Your task to perform on an android device: turn off smart reply in the gmail app Image 0: 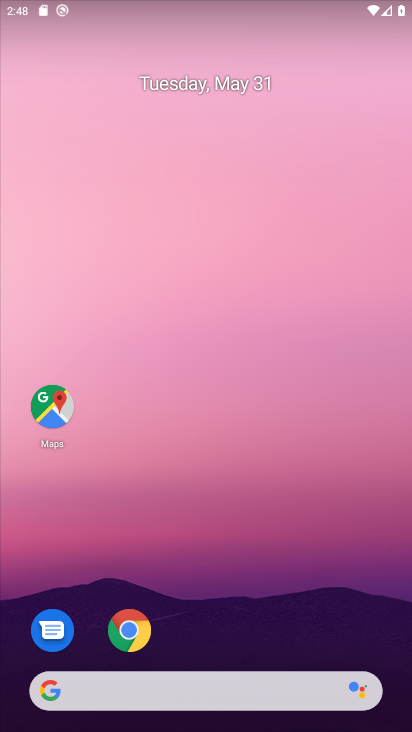
Step 0: drag from (218, 407) to (261, 50)
Your task to perform on an android device: turn off smart reply in the gmail app Image 1: 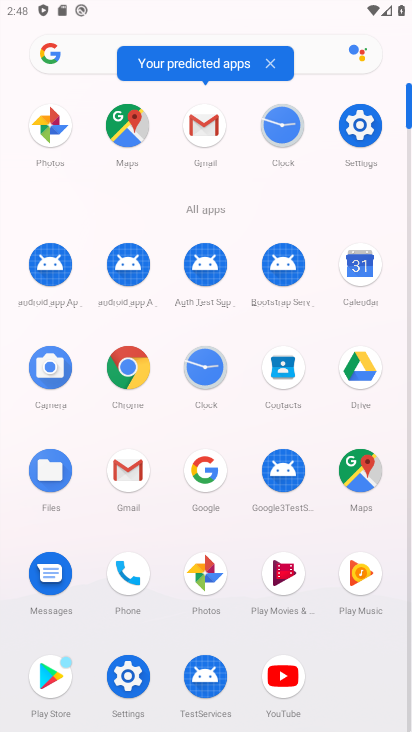
Step 1: click (206, 123)
Your task to perform on an android device: turn off smart reply in the gmail app Image 2: 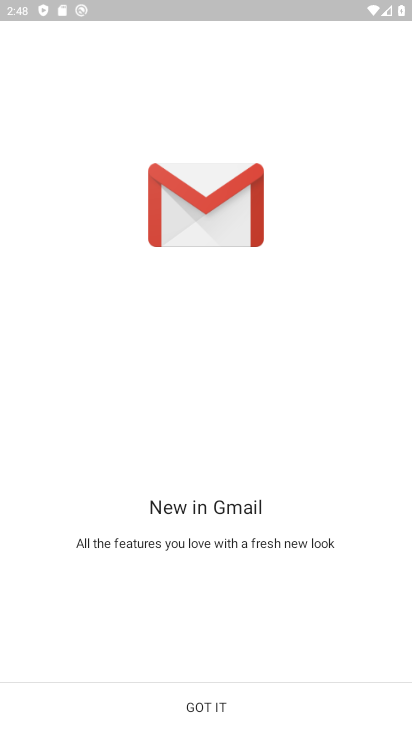
Step 2: click (191, 695)
Your task to perform on an android device: turn off smart reply in the gmail app Image 3: 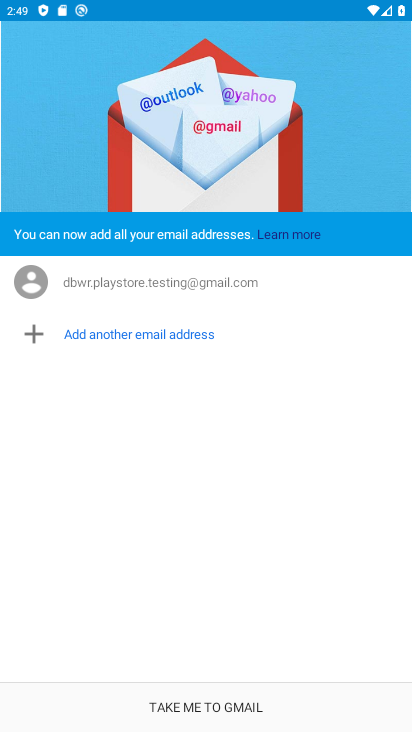
Step 3: click (176, 705)
Your task to perform on an android device: turn off smart reply in the gmail app Image 4: 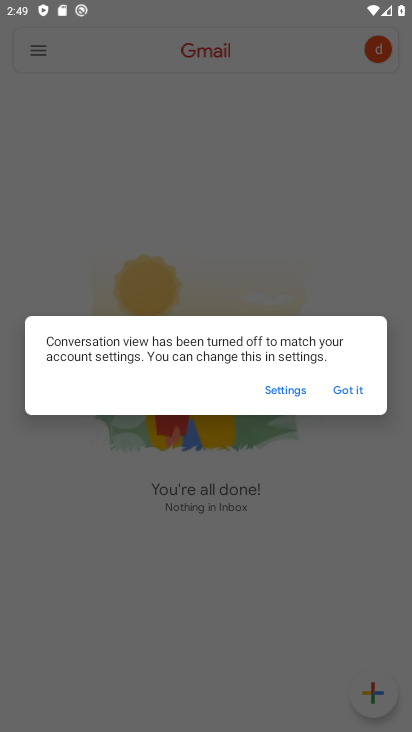
Step 4: click (345, 388)
Your task to perform on an android device: turn off smart reply in the gmail app Image 5: 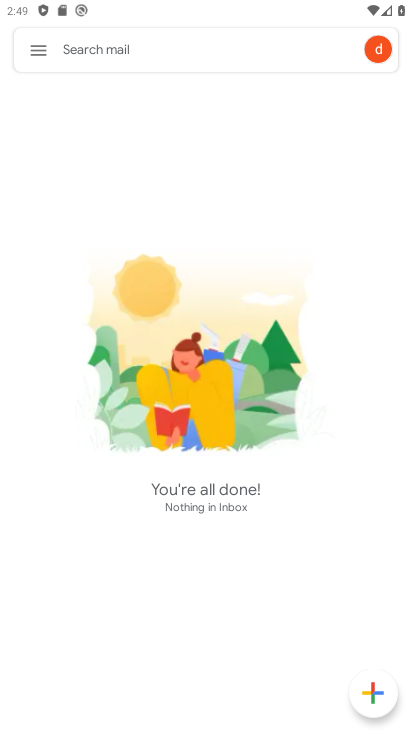
Step 5: click (22, 38)
Your task to perform on an android device: turn off smart reply in the gmail app Image 6: 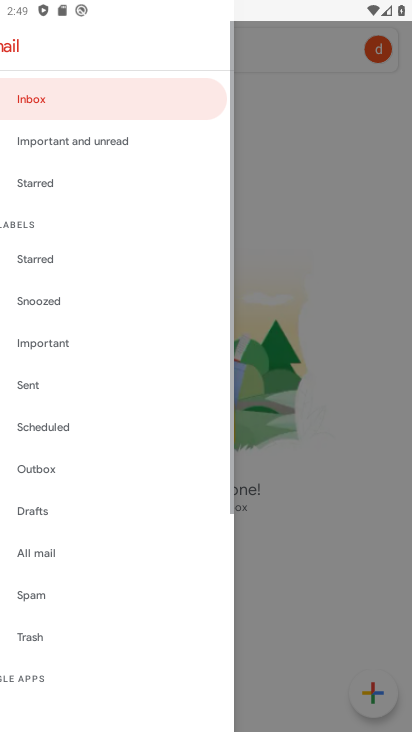
Step 6: click (33, 49)
Your task to perform on an android device: turn off smart reply in the gmail app Image 7: 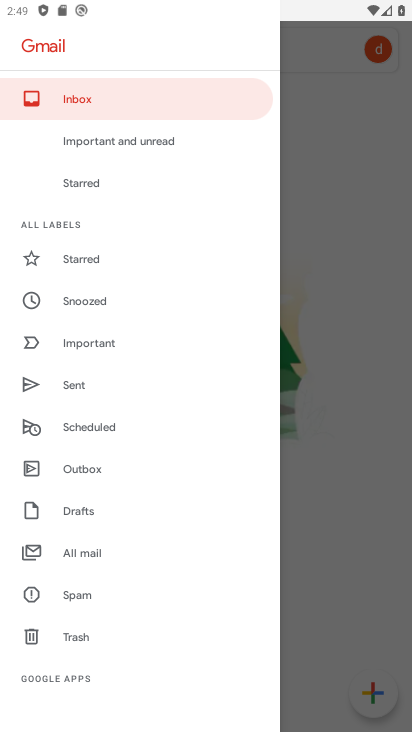
Step 7: drag from (85, 576) to (141, 227)
Your task to perform on an android device: turn off smart reply in the gmail app Image 8: 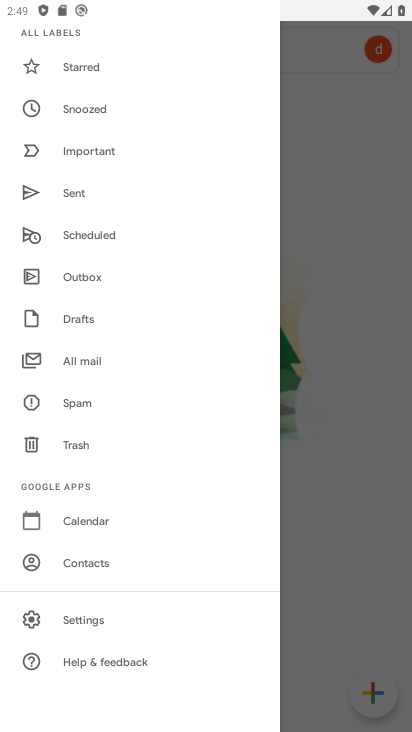
Step 8: click (83, 620)
Your task to perform on an android device: turn off smart reply in the gmail app Image 9: 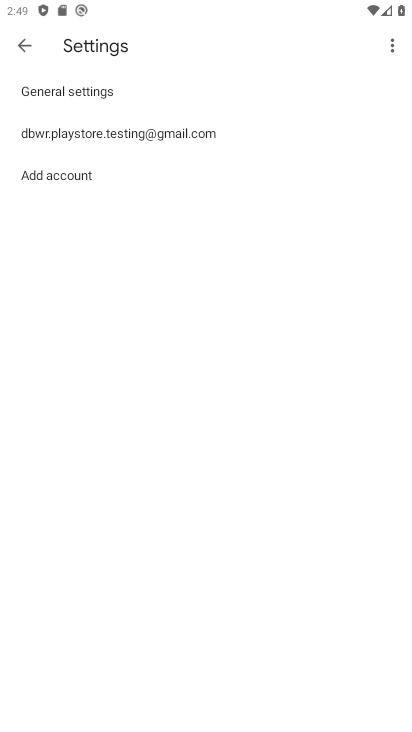
Step 9: click (145, 136)
Your task to perform on an android device: turn off smart reply in the gmail app Image 10: 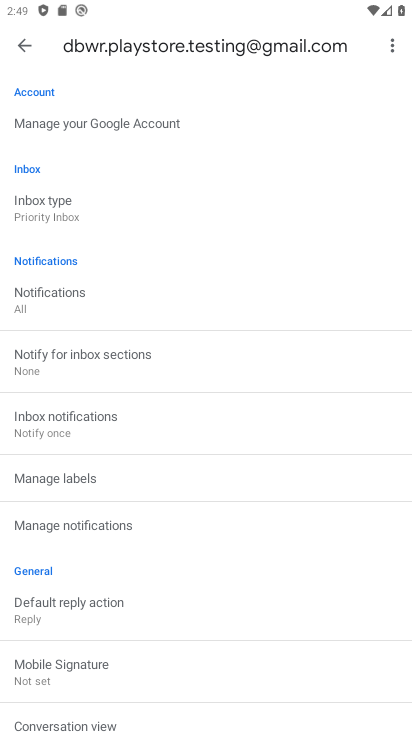
Step 10: drag from (83, 579) to (143, 349)
Your task to perform on an android device: turn off smart reply in the gmail app Image 11: 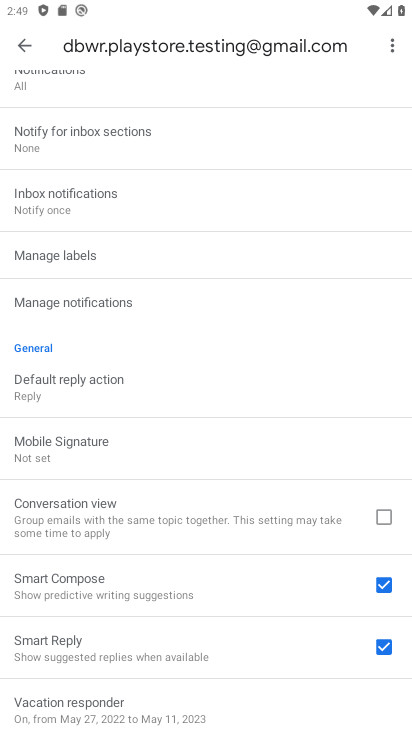
Step 11: drag from (76, 563) to (135, 408)
Your task to perform on an android device: turn off smart reply in the gmail app Image 12: 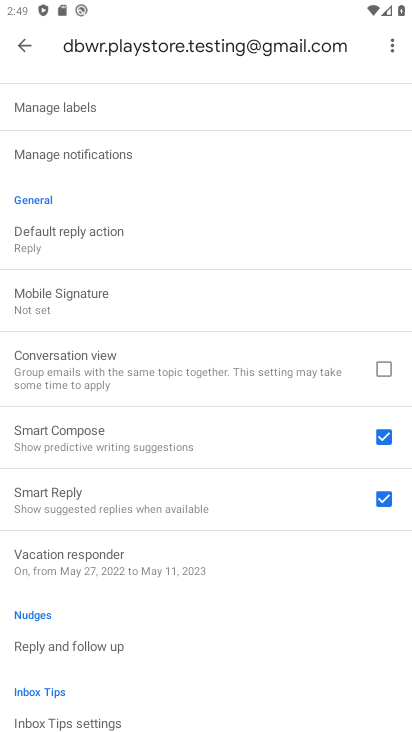
Step 12: click (89, 506)
Your task to perform on an android device: turn off smart reply in the gmail app Image 13: 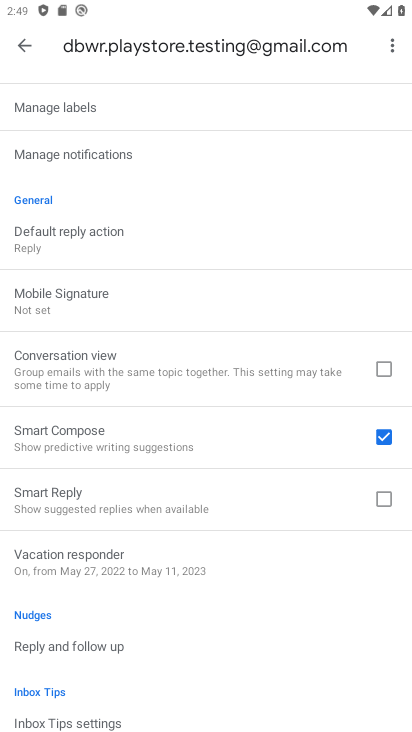
Step 13: task complete